Your task to perform on an android device: turn off location history Image 0: 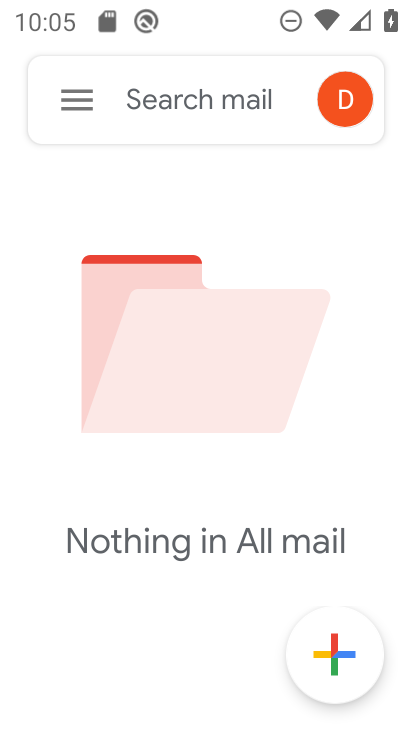
Step 0: press home button
Your task to perform on an android device: turn off location history Image 1: 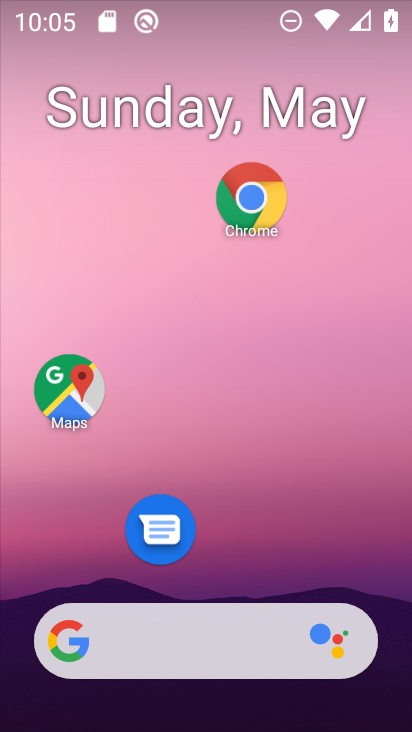
Step 1: drag from (252, 561) to (305, 95)
Your task to perform on an android device: turn off location history Image 2: 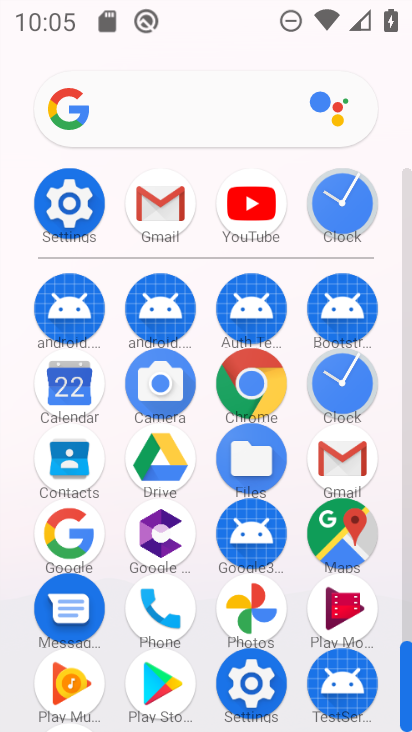
Step 2: click (70, 210)
Your task to perform on an android device: turn off location history Image 3: 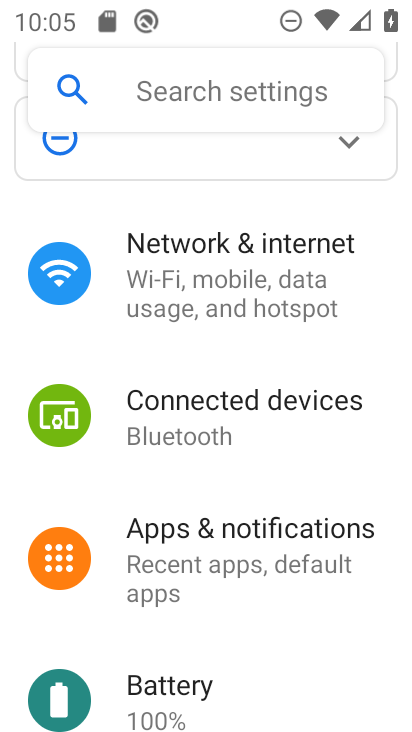
Step 3: drag from (249, 632) to (228, 315)
Your task to perform on an android device: turn off location history Image 4: 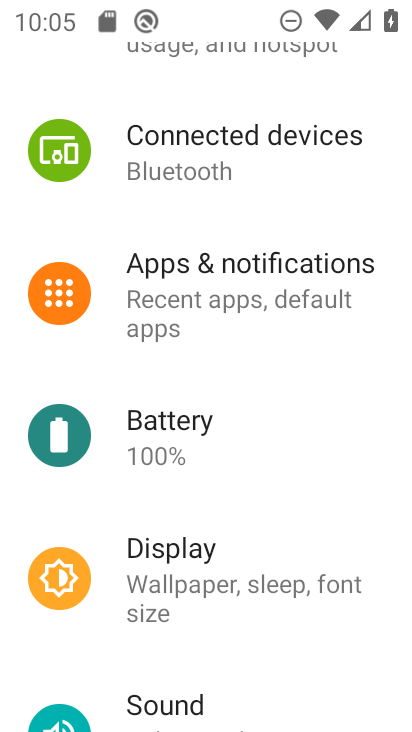
Step 4: drag from (226, 629) to (250, 368)
Your task to perform on an android device: turn off location history Image 5: 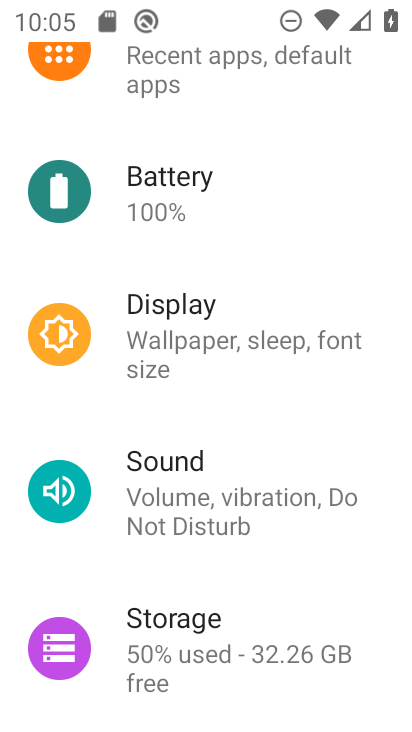
Step 5: drag from (241, 632) to (276, 406)
Your task to perform on an android device: turn off location history Image 6: 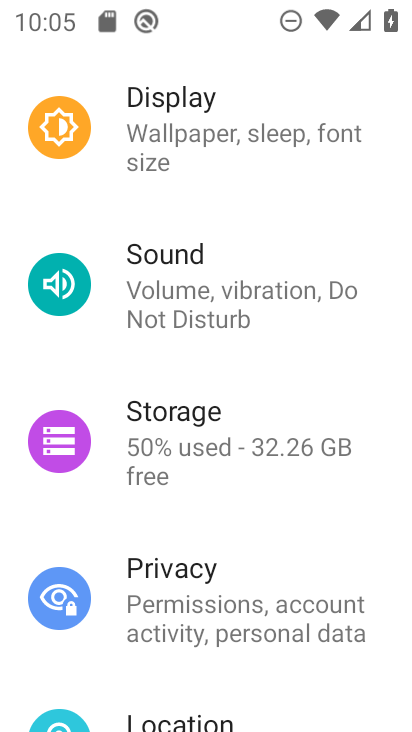
Step 6: drag from (256, 691) to (294, 431)
Your task to perform on an android device: turn off location history Image 7: 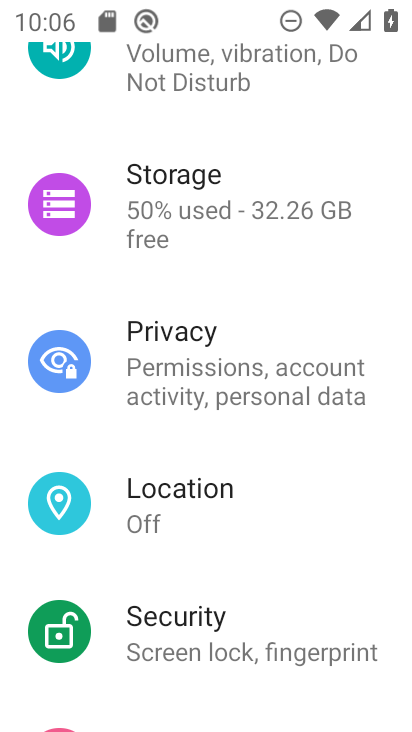
Step 7: click (230, 521)
Your task to perform on an android device: turn off location history Image 8: 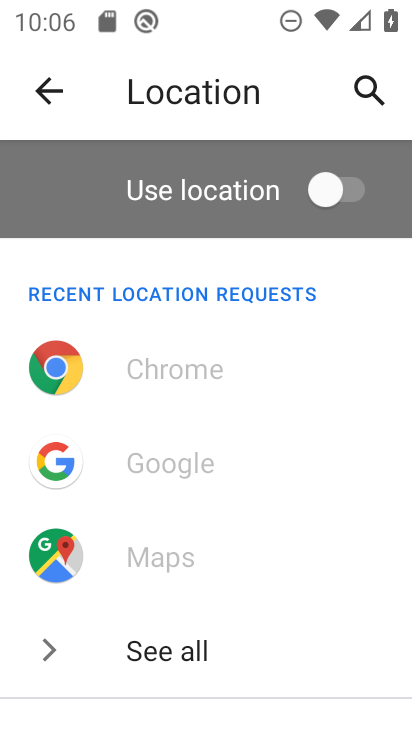
Step 8: drag from (165, 609) to (288, 160)
Your task to perform on an android device: turn off location history Image 9: 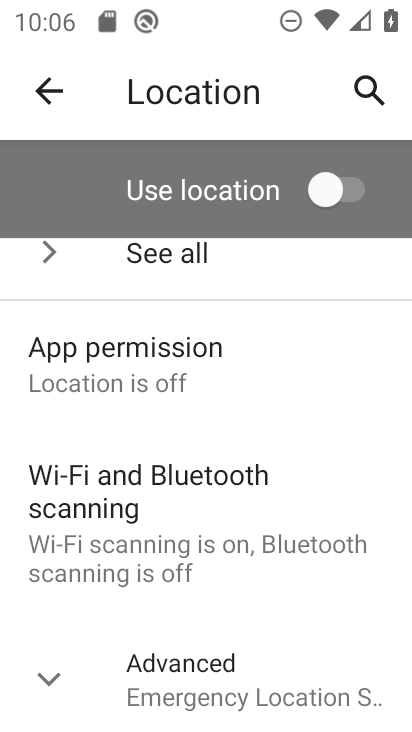
Step 9: click (166, 664)
Your task to perform on an android device: turn off location history Image 10: 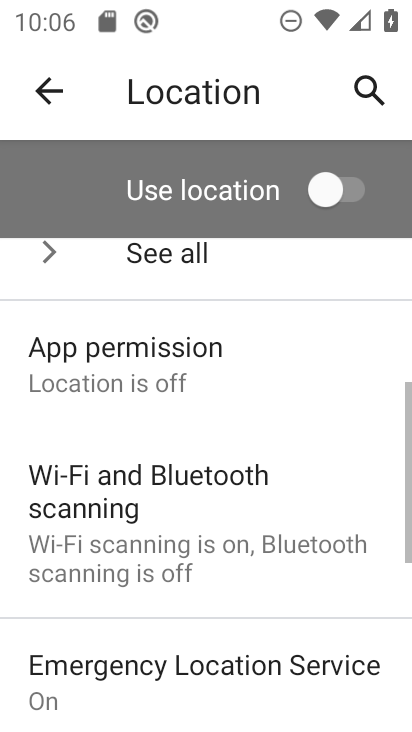
Step 10: drag from (166, 645) to (266, 249)
Your task to perform on an android device: turn off location history Image 11: 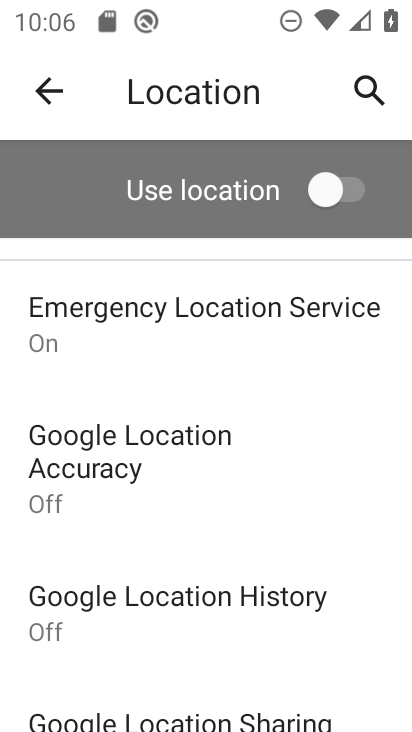
Step 11: click (158, 626)
Your task to perform on an android device: turn off location history Image 12: 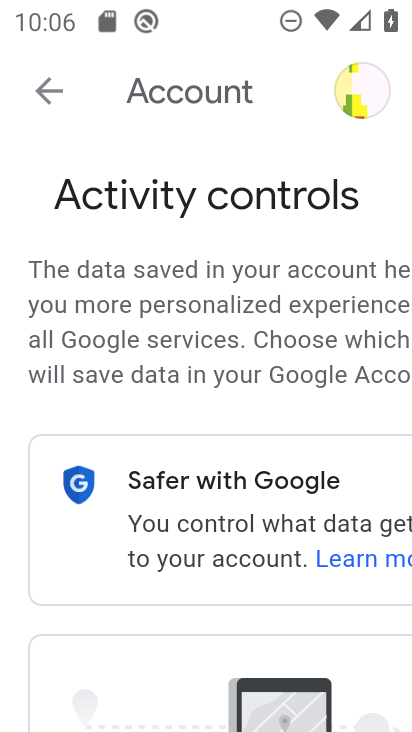
Step 12: task complete